Your task to perform on an android device: Is it going to rain tomorrow? Image 0: 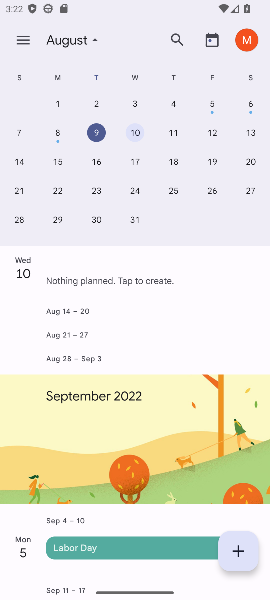
Step 0: press home button
Your task to perform on an android device: Is it going to rain tomorrow? Image 1: 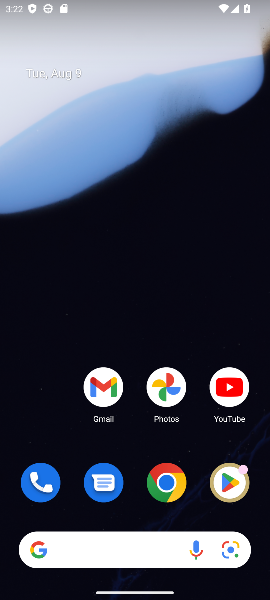
Step 1: drag from (135, 424) to (133, 96)
Your task to perform on an android device: Is it going to rain tomorrow? Image 2: 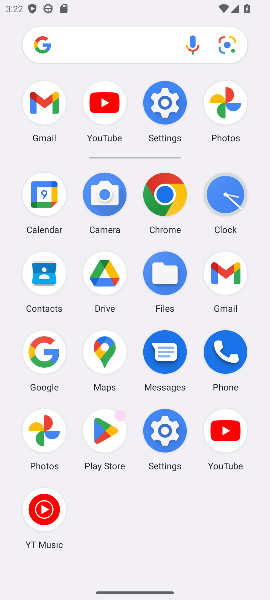
Step 2: click (49, 364)
Your task to perform on an android device: Is it going to rain tomorrow? Image 3: 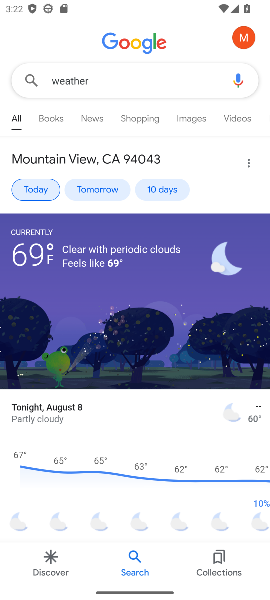
Step 3: click (115, 180)
Your task to perform on an android device: Is it going to rain tomorrow? Image 4: 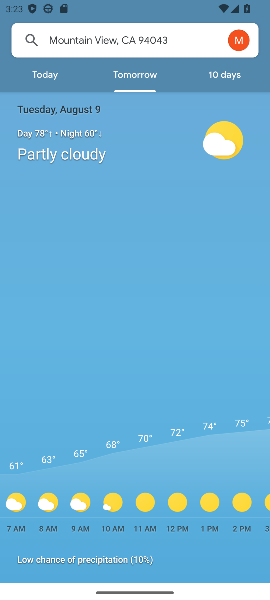
Step 4: task complete